Your task to perform on an android device: Go to Maps Image 0: 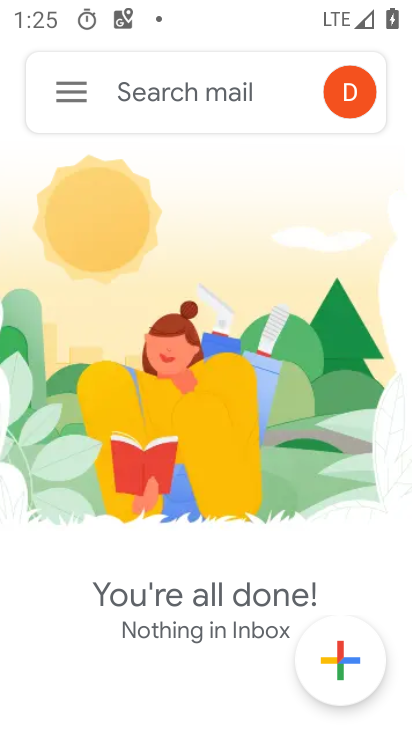
Step 0: press home button
Your task to perform on an android device: Go to Maps Image 1: 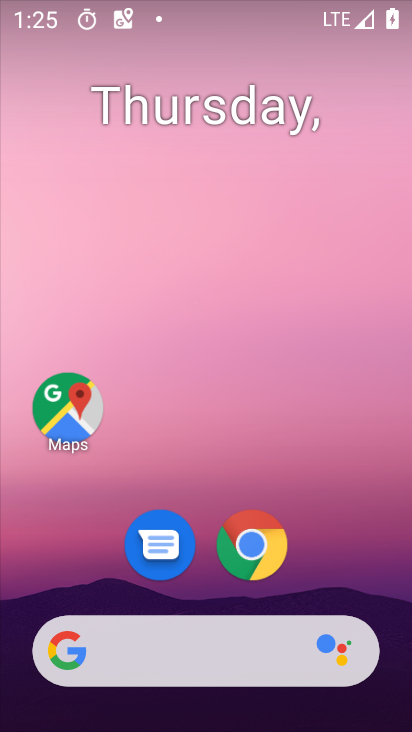
Step 1: drag from (229, 624) to (204, 2)
Your task to perform on an android device: Go to Maps Image 2: 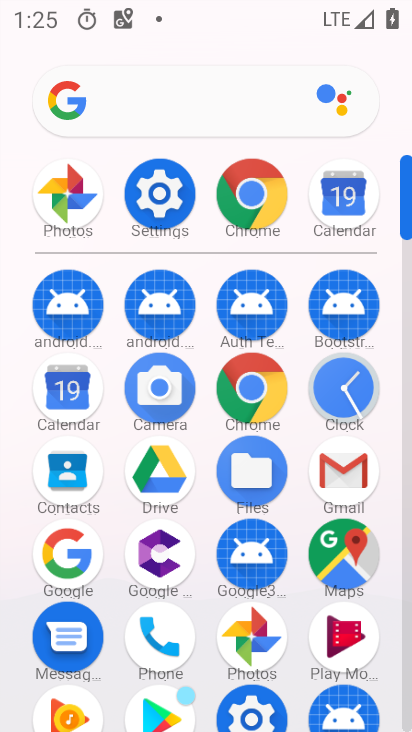
Step 2: click (343, 563)
Your task to perform on an android device: Go to Maps Image 3: 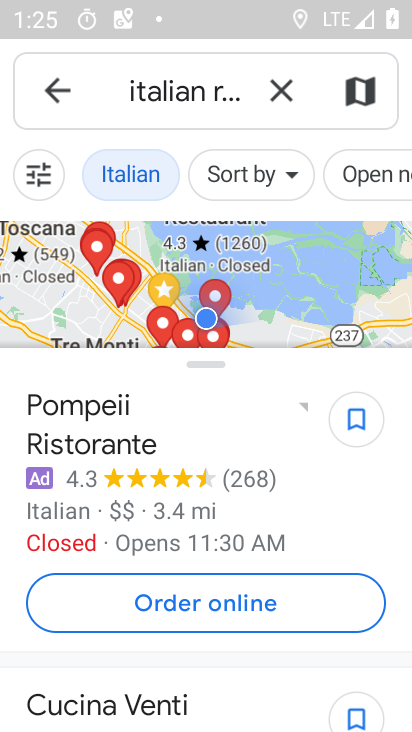
Step 3: task complete